Your task to perform on an android device: find photos in the google photos app Image 0: 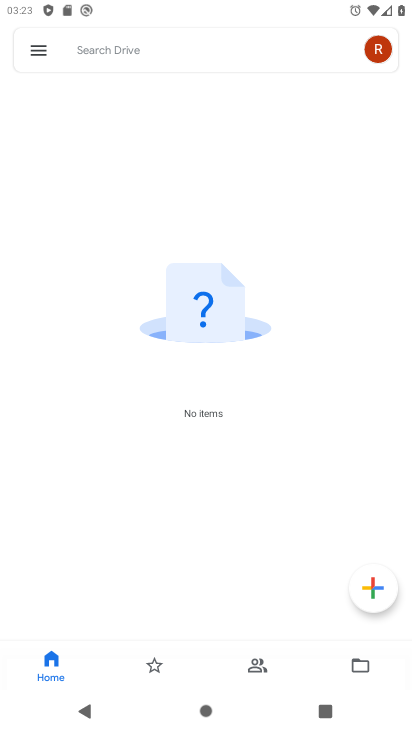
Step 0: task impossible